Your task to perform on an android device: Open accessibility settings Image 0: 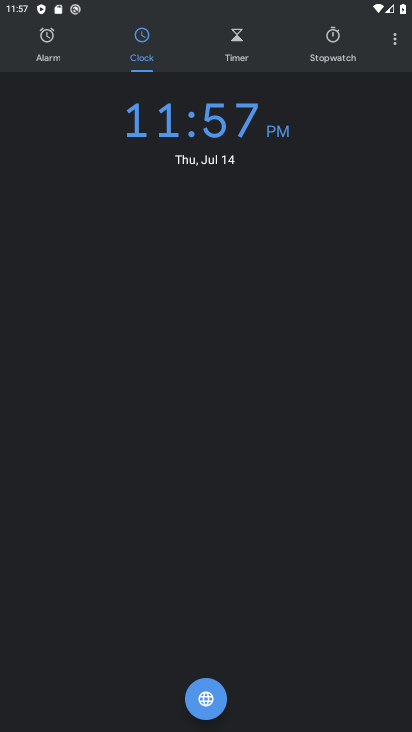
Step 0: press home button
Your task to perform on an android device: Open accessibility settings Image 1: 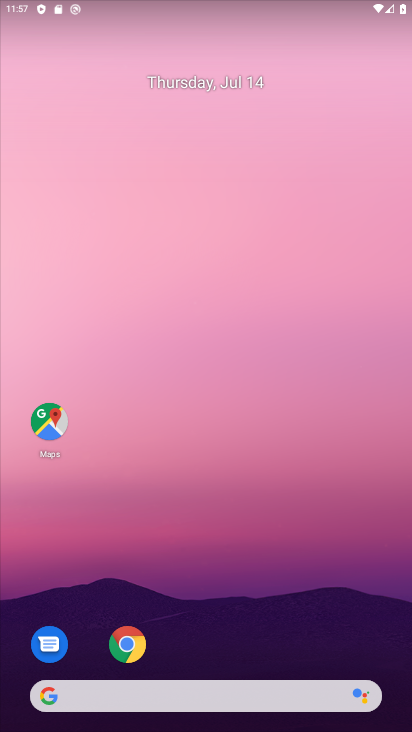
Step 1: drag from (205, 697) to (198, 220)
Your task to perform on an android device: Open accessibility settings Image 2: 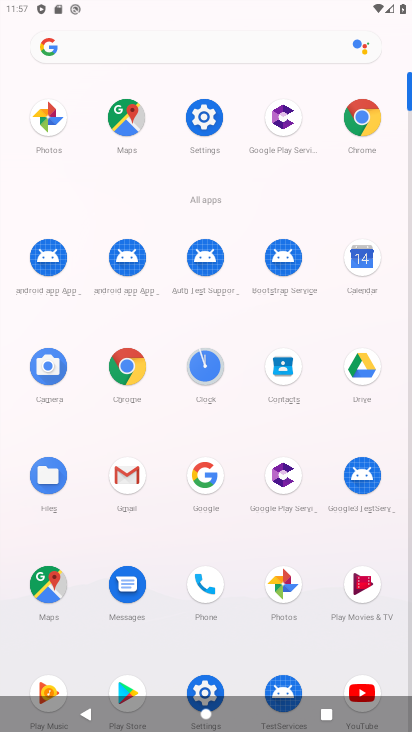
Step 2: click (215, 122)
Your task to perform on an android device: Open accessibility settings Image 3: 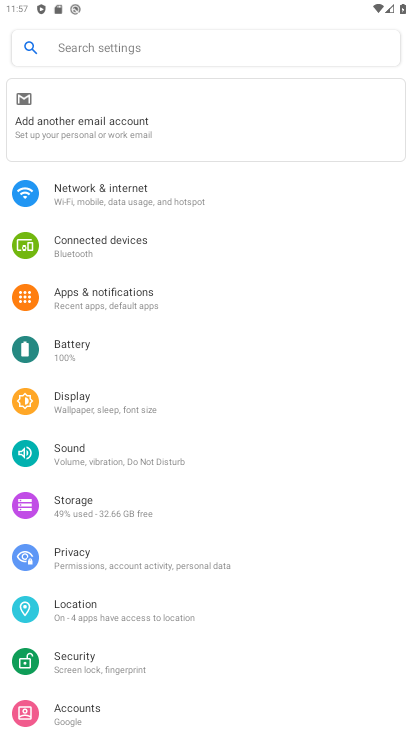
Step 3: drag from (126, 677) to (141, 378)
Your task to perform on an android device: Open accessibility settings Image 4: 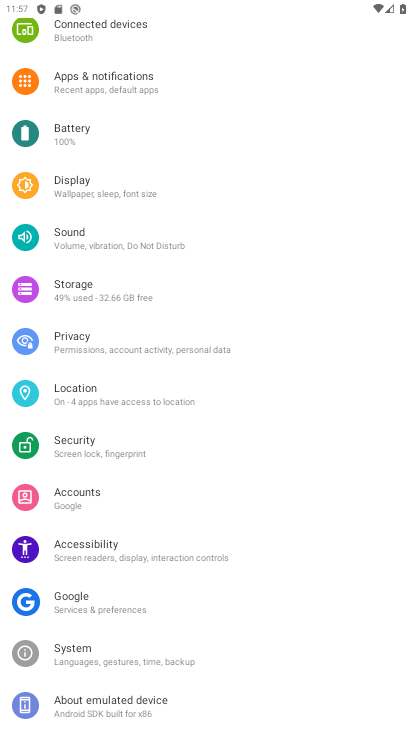
Step 4: click (83, 546)
Your task to perform on an android device: Open accessibility settings Image 5: 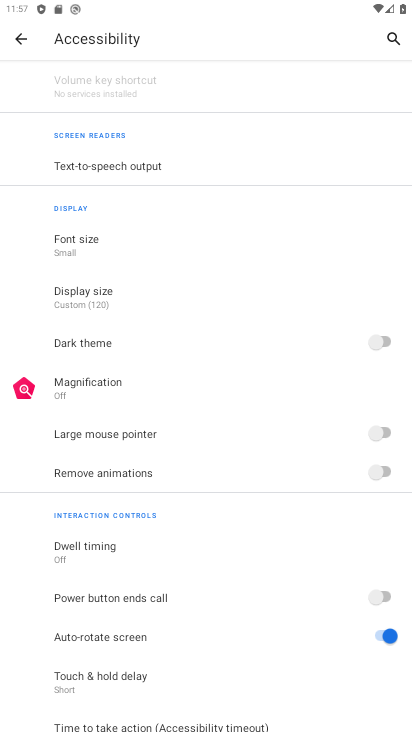
Step 5: task complete